Your task to perform on an android device: Go to sound settings Image 0: 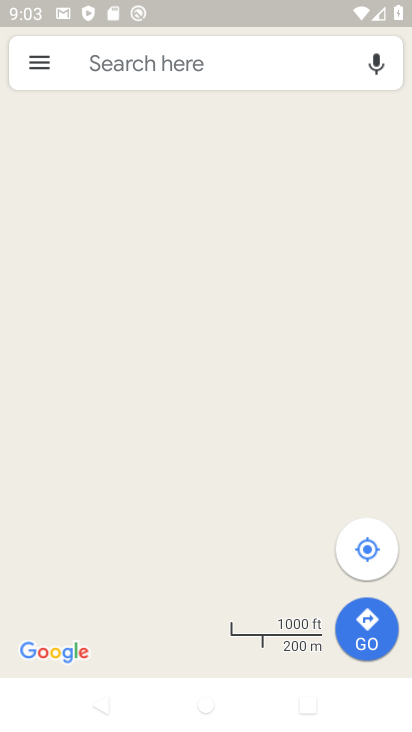
Step 0: press home button
Your task to perform on an android device: Go to sound settings Image 1: 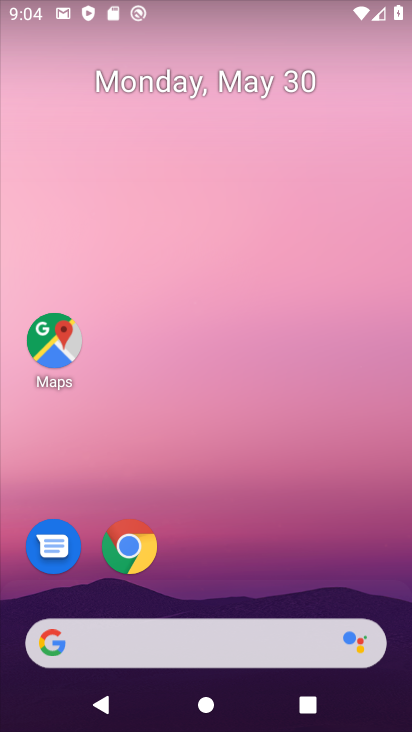
Step 1: drag from (340, 494) to (306, 75)
Your task to perform on an android device: Go to sound settings Image 2: 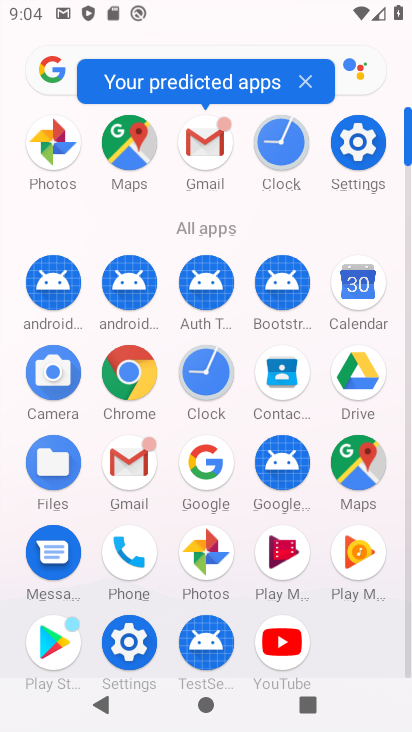
Step 2: drag from (337, 598) to (300, 280)
Your task to perform on an android device: Go to sound settings Image 3: 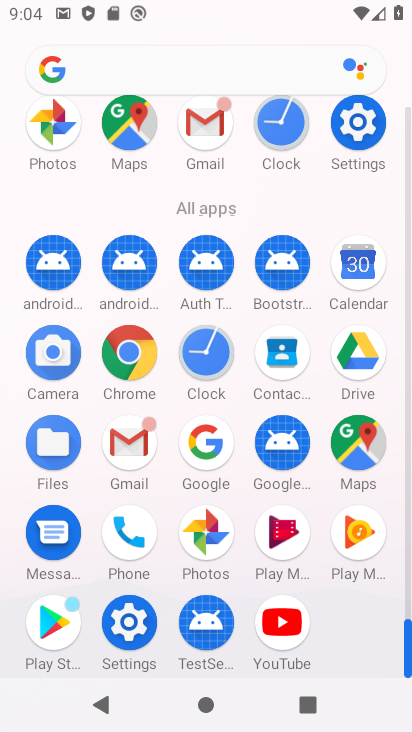
Step 3: click (137, 642)
Your task to perform on an android device: Go to sound settings Image 4: 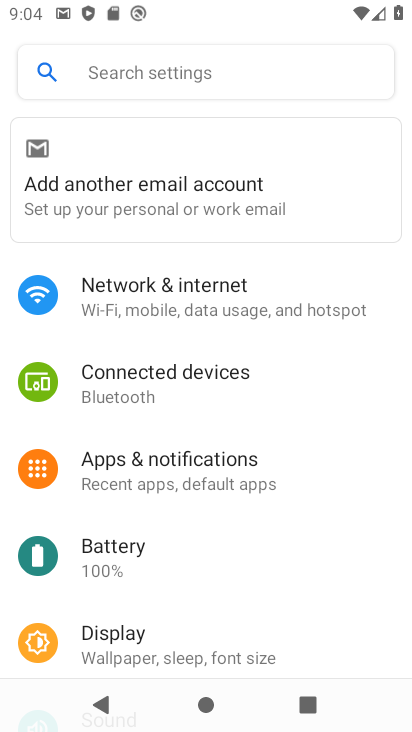
Step 4: drag from (237, 580) to (222, 230)
Your task to perform on an android device: Go to sound settings Image 5: 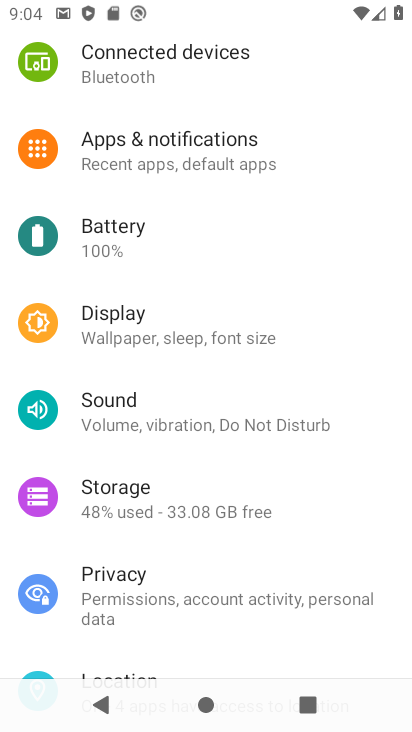
Step 5: click (241, 421)
Your task to perform on an android device: Go to sound settings Image 6: 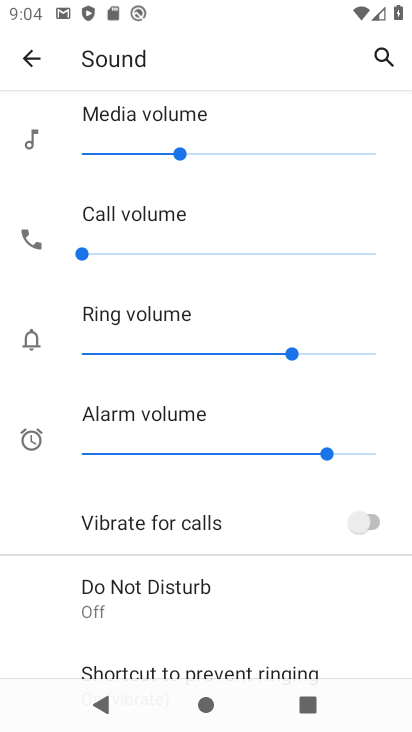
Step 6: drag from (256, 632) to (246, 317)
Your task to perform on an android device: Go to sound settings Image 7: 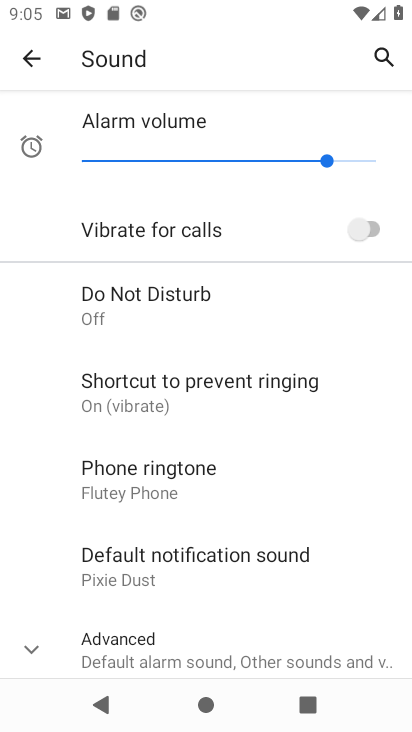
Step 7: drag from (252, 641) to (248, 315)
Your task to perform on an android device: Go to sound settings Image 8: 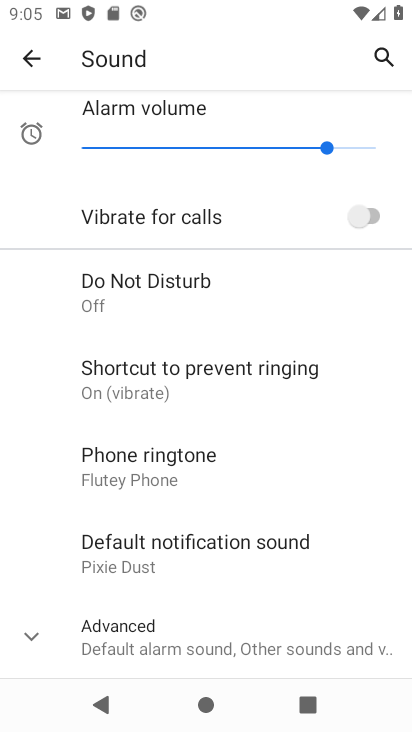
Step 8: drag from (339, 589) to (339, 395)
Your task to perform on an android device: Go to sound settings Image 9: 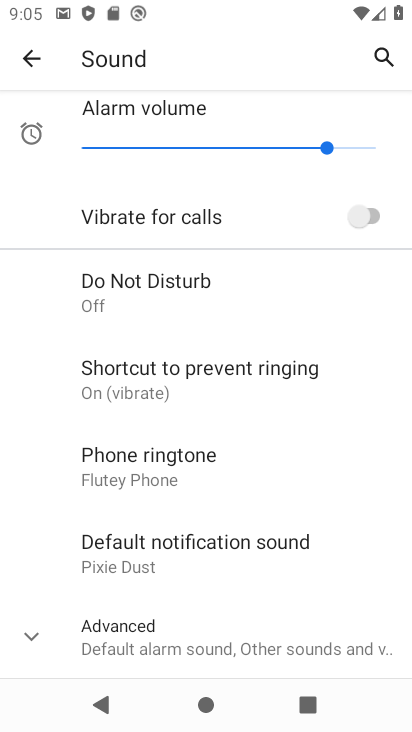
Step 9: click (24, 653)
Your task to perform on an android device: Go to sound settings Image 10: 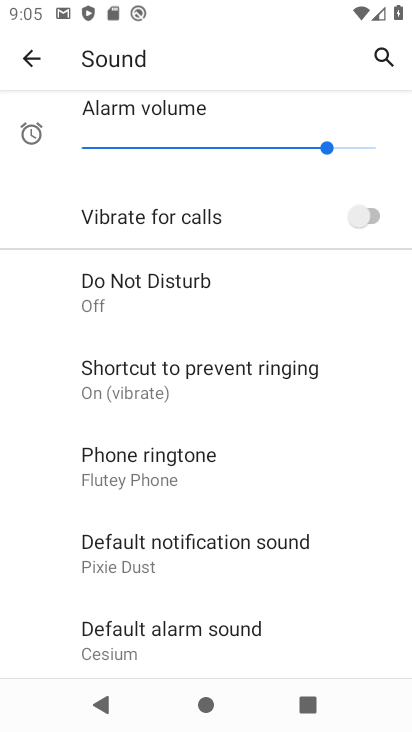
Step 10: task complete